Your task to perform on an android device: toggle translation in the chrome app Image 0: 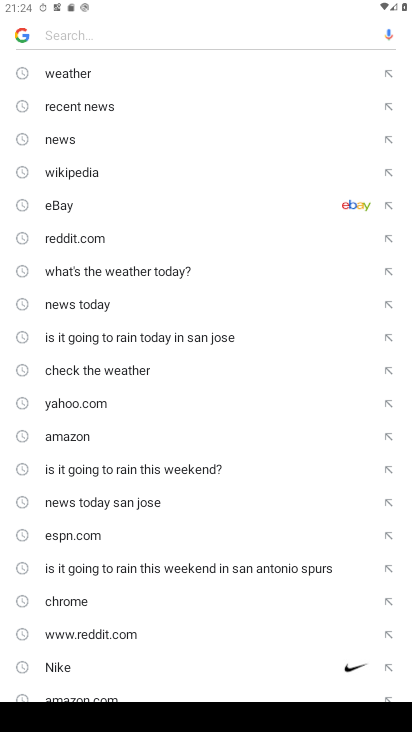
Step 0: press home button
Your task to perform on an android device: toggle translation in the chrome app Image 1: 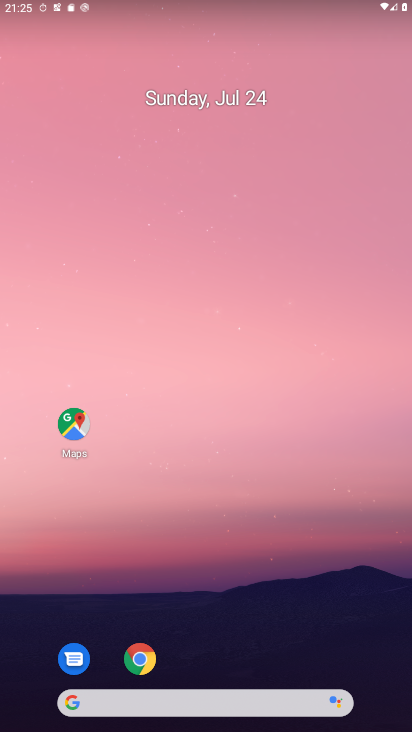
Step 1: click (136, 662)
Your task to perform on an android device: toggle translation in the chrome app Image 2: 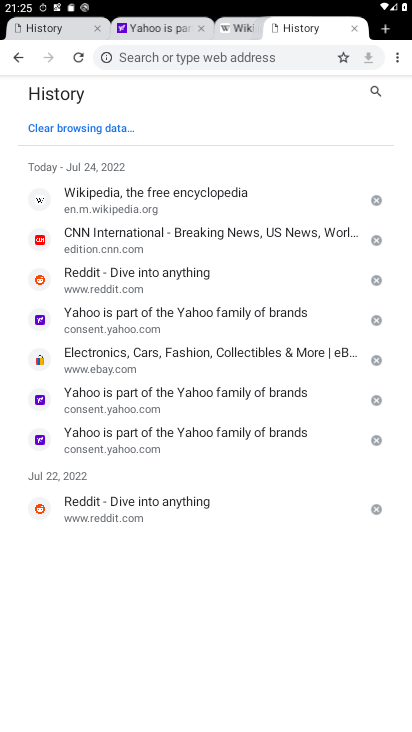
Step 2: click (399, 60)
Your task to perform on an android device: toggle translation in the chrome app Image 3: 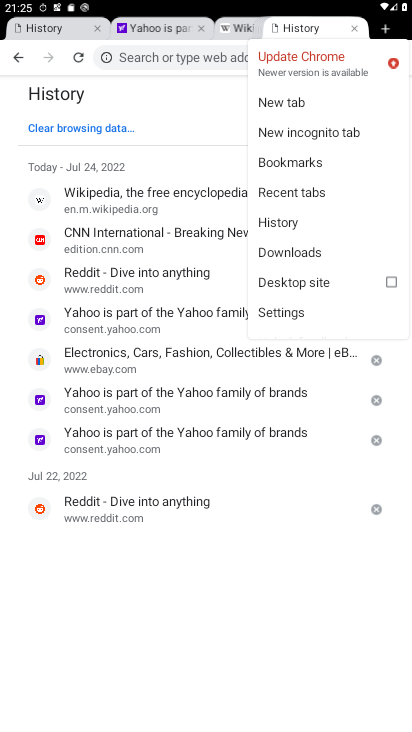
Step 3: click (281, 310)
Your task to perform on an android device: toggle translation in the chrome app Image 4: 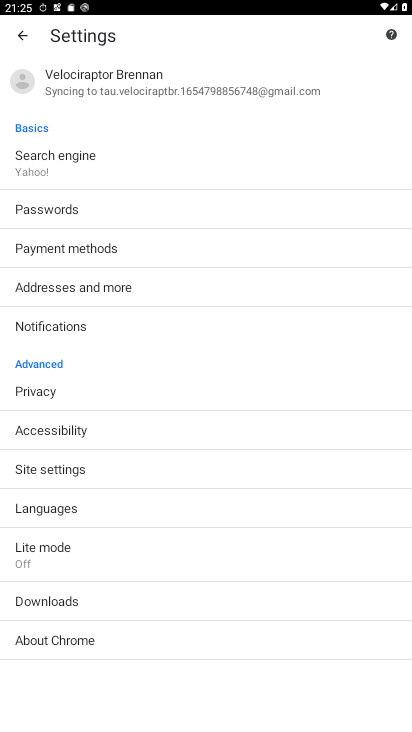
Step 4: click (41, 511)
Your task to perform on an android device: toggle translation in the chrome app Image 5: 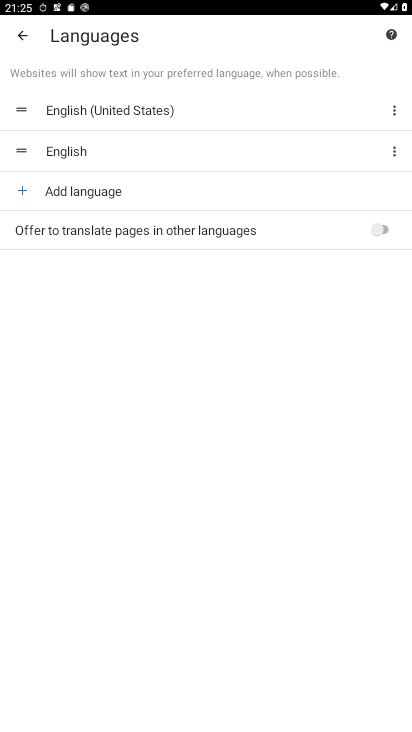
Step 5: click (381, 227)
Your task to perform on an android device: toggle translation in the chrome app Image 6: 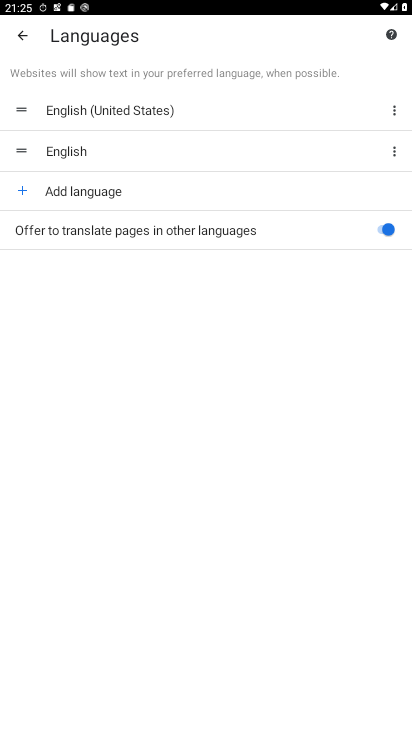
Step 6: task complete